Your task to perform on an android device: open app "Microsoft Outlook" Image 0: 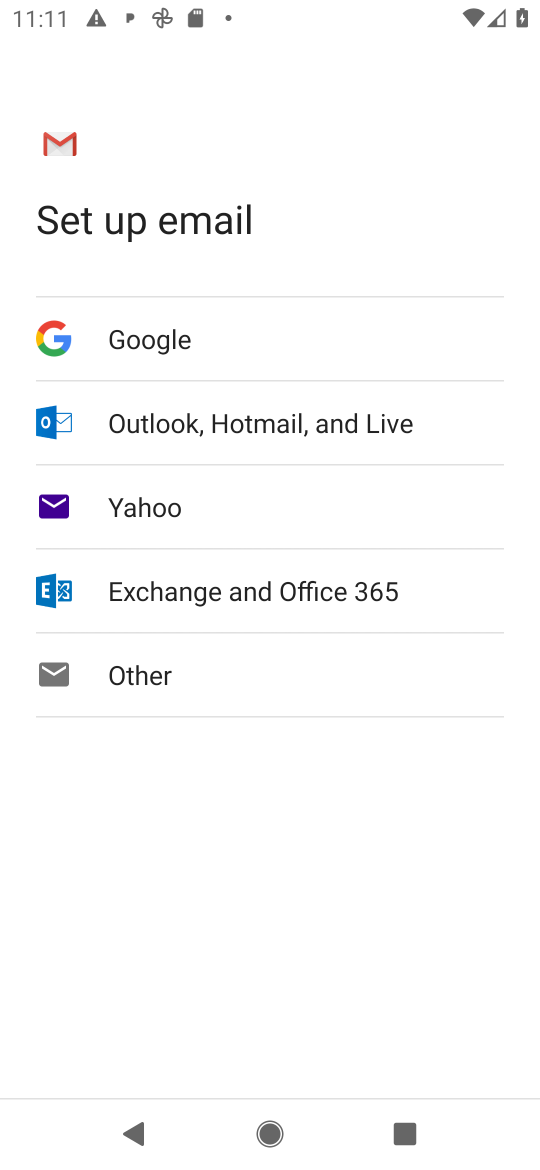
Step 0: press home button
Your task to perform on an android device: open app "Microsoft Outlook" Image 1: 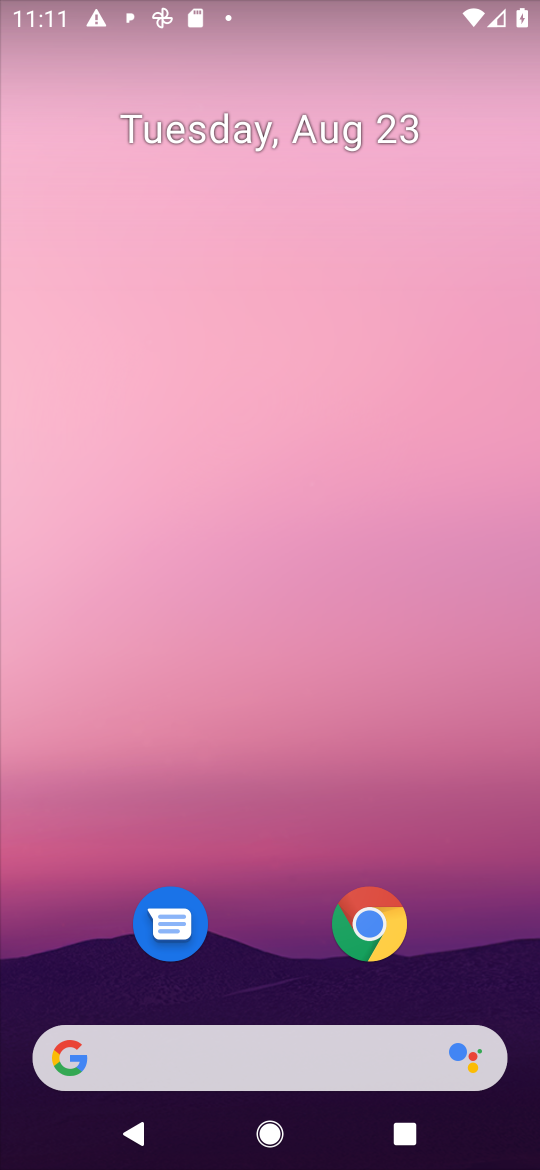
Step 1: drag from (471, 957) to (473, 119)
Your task to perform on an android device: open app "Microsoft Outlook" Image 2: 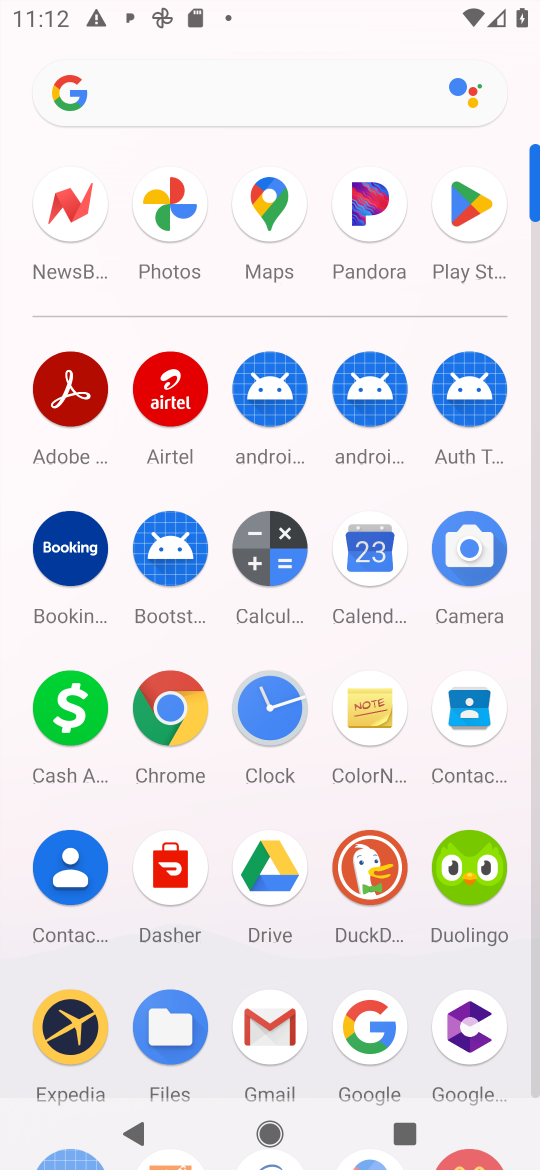
Step 2: click (474, 224)
Your task to perform on an android device: open app "Microsoft Outlook" Image 3: 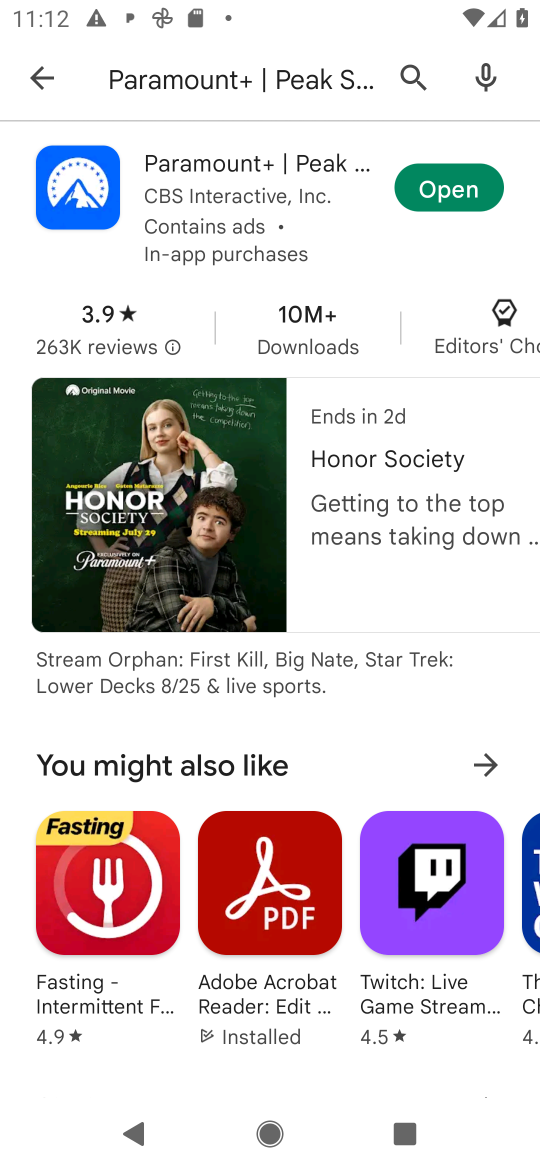
Step 3: press back button
Your task to perform on an android device: open app "Microsoft Outlook" Image 4: 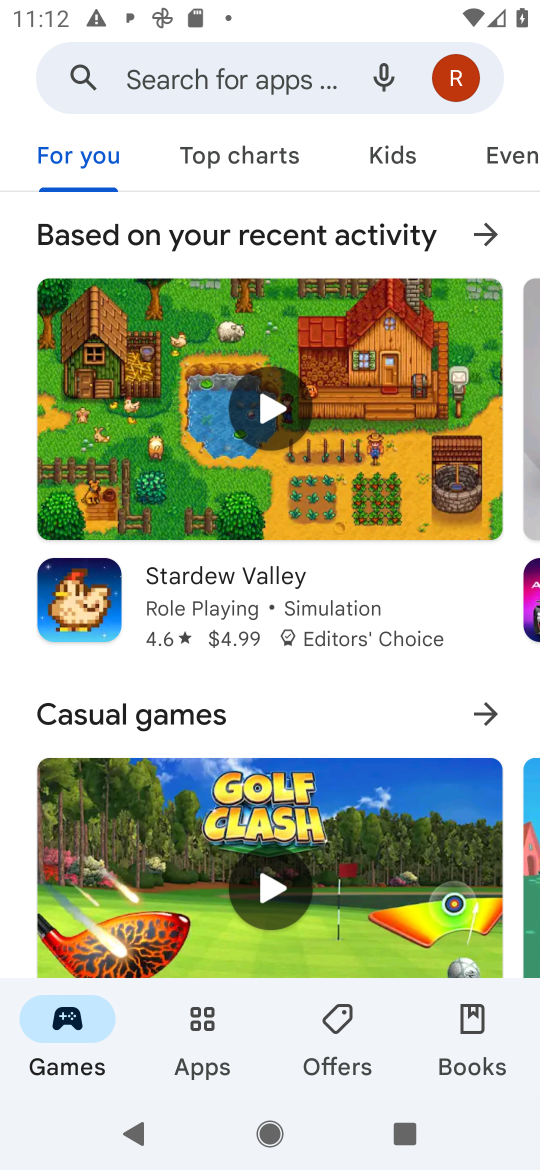
Step 4: click (254, 83)
Your task to perform on an android device: open app "Microsoft Outlook" Image 5: 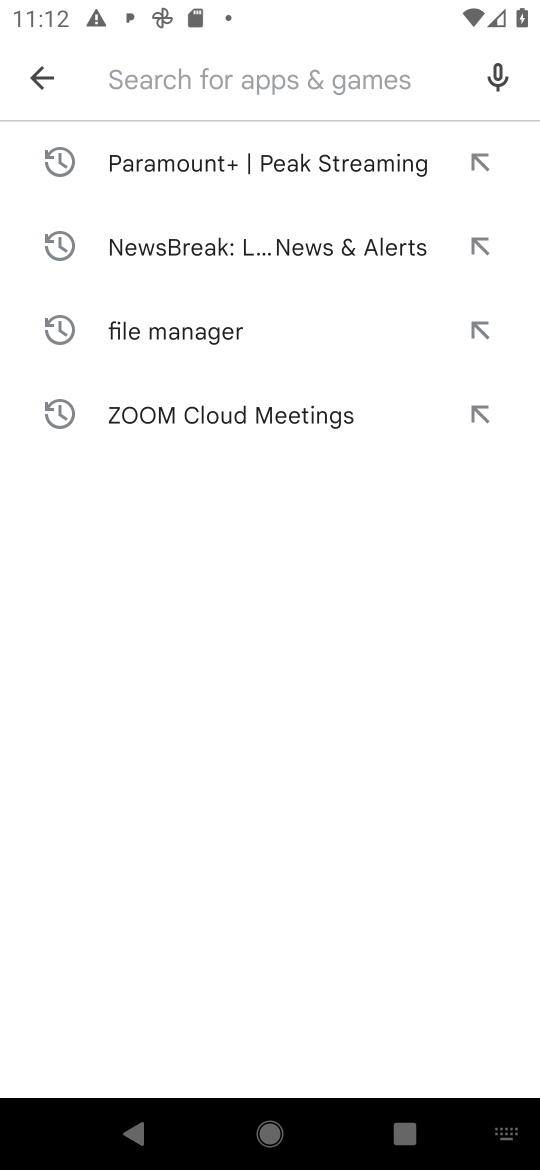
Step 5: type "Microsoft Outlook"
Your task to perform on an android device: open app "Microsoft Outlook" Image 6: 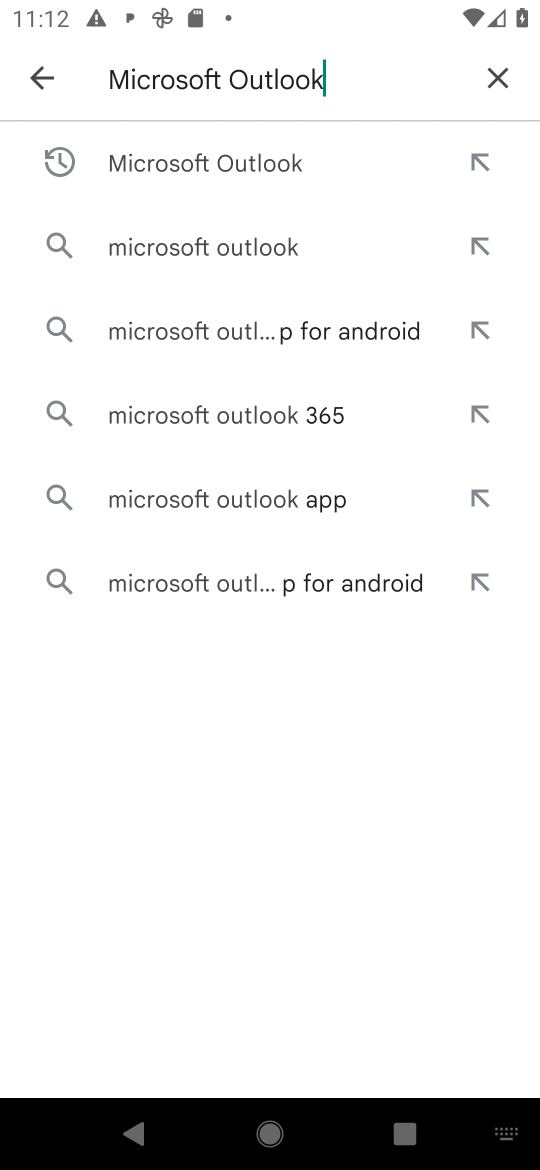
Step 6: press enter
Your task to perform on an android device: open app "Microsoft Outlook" Image 7: 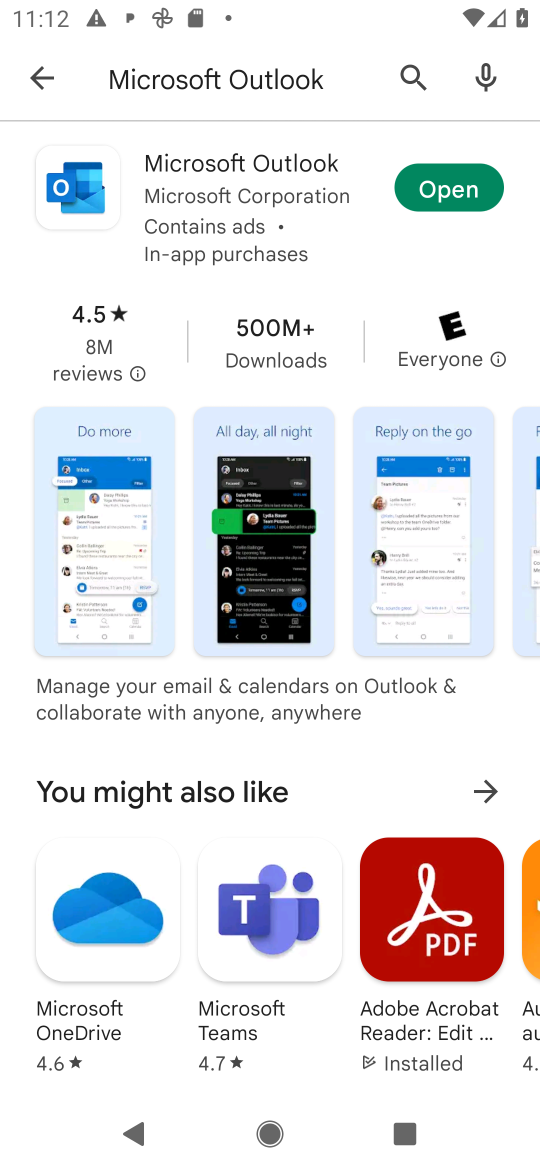
Step 7: click (464, 190)
Your task to perform on an android device: open app "Microsoft Outlook" Image 8: 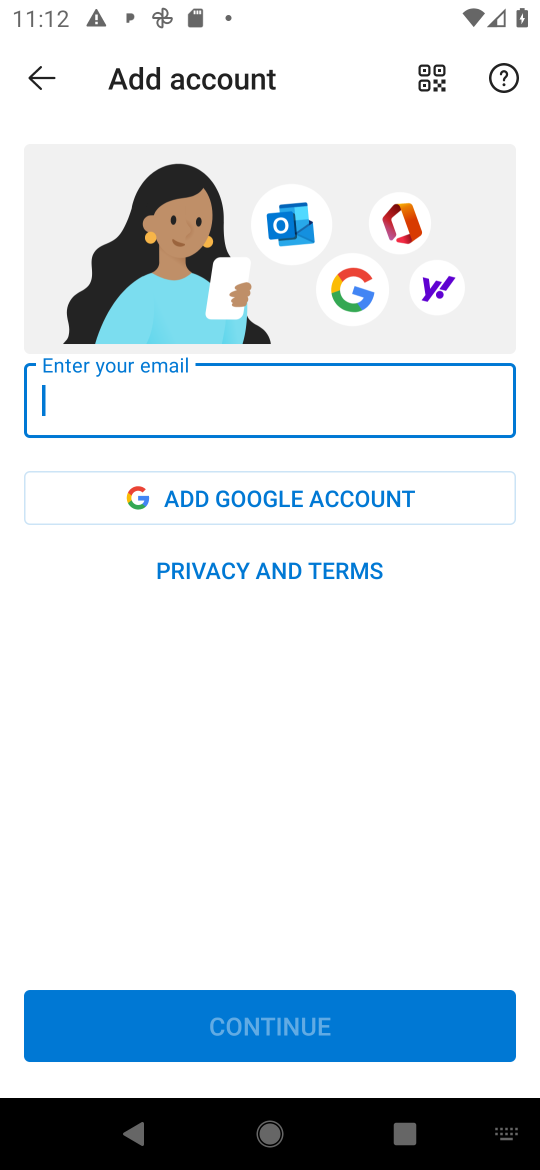
Step 8: task complete